Your task to perform on an android device: Open sound settings Image 0: 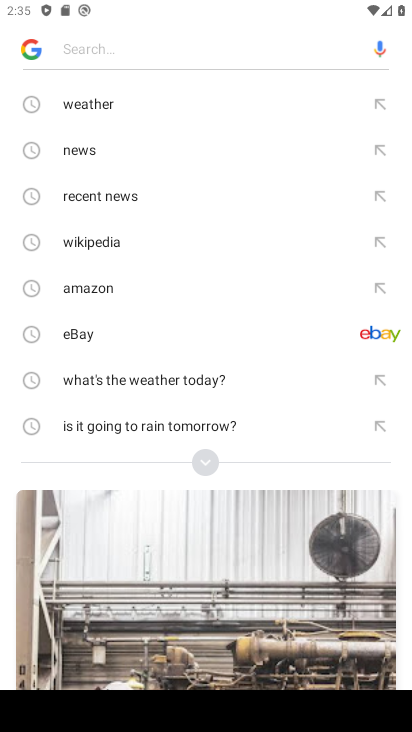
Step 0: press home button
Your task to perform on an android device: Open sound settings Image 1: 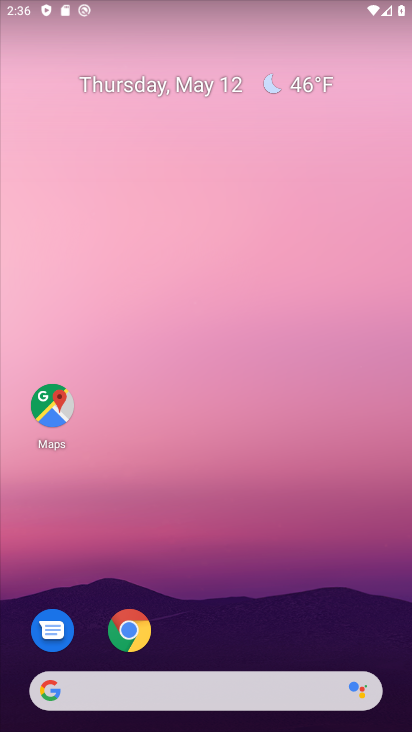
Step 1: drag from (274, 603) to (272, 114)
Your task to perform on an android device: Open sound settings Image 2: 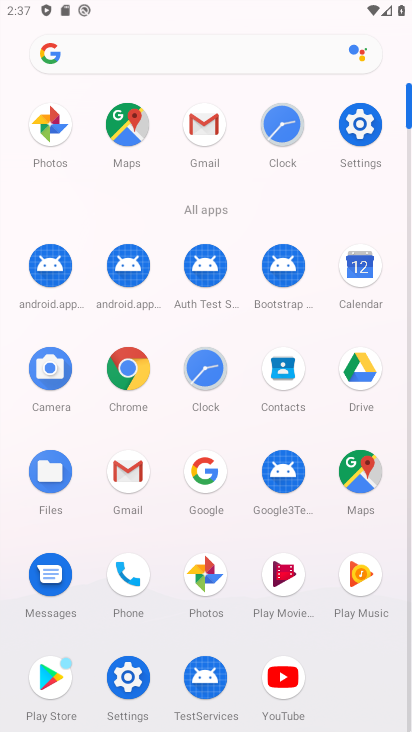
Step 2: click (360, 129)
Your task to perform on an android device: Open sound settings Image 3: 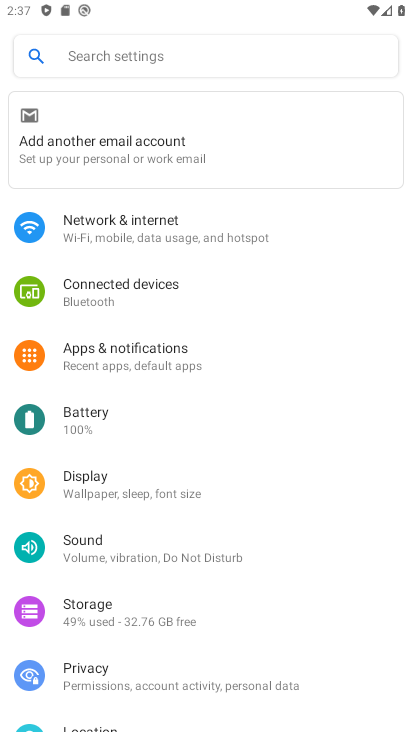
Step 3: click (122, 543)
Your task to perform on an android device: Open sound settings Image 4: 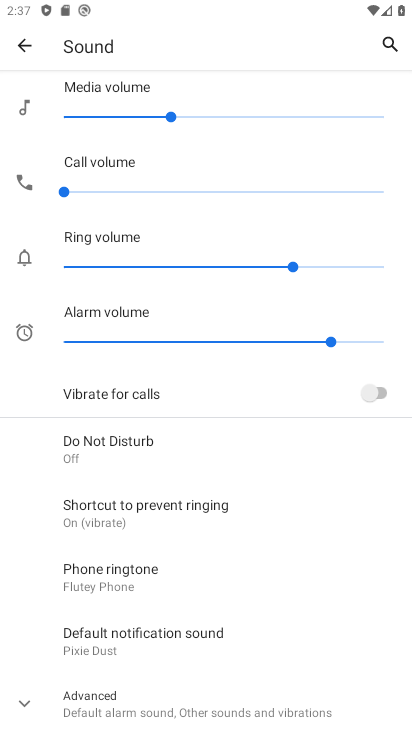
Step 4: task complete